Your task to perform on an android device: When is my next meeting? Image 0: 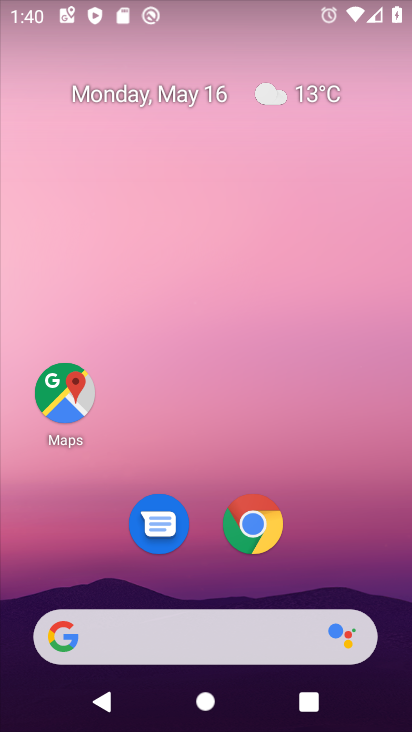
Step 0: drag from (304, 452) to (240, 48)
Your task to perform on an android device: When is my next meeting? Image 1: 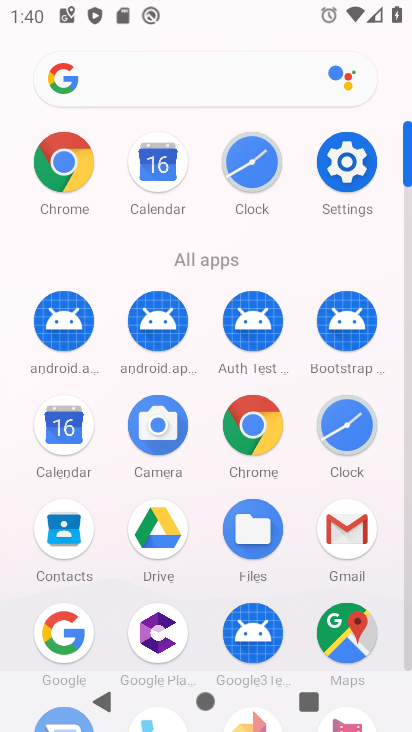
Step 1: click (156, 165)
Your task to perform on an android device: When is my next meeting? Image 2: 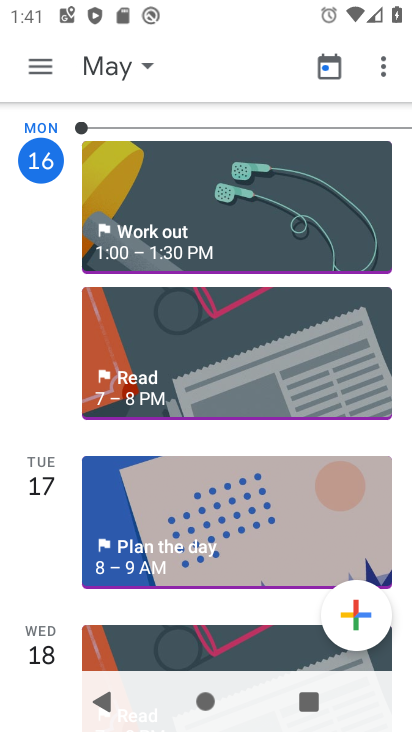
Step 2: task complete